Your task to perform on an android device: toggle notifications settings in the gmail app Image 0: 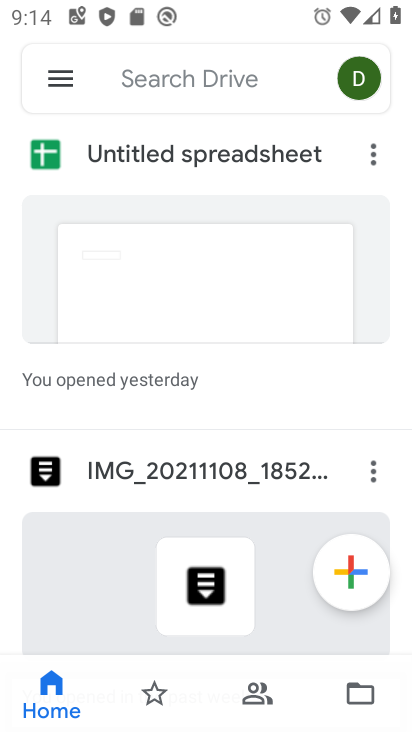
Step 0: press home button
Your task to perform on an android device: toggle notifications settings in the gmail app Image 1: 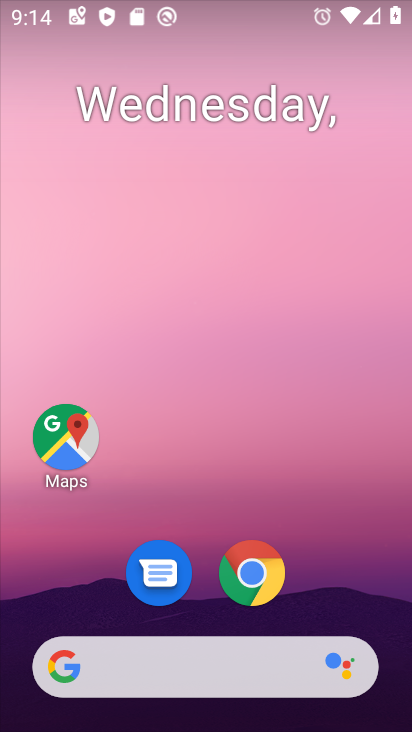
Step 1: drag from (256, 717) to (341, 2)
Your task to perform on an android device: toggle notifications settings in the gmail app Image 2: 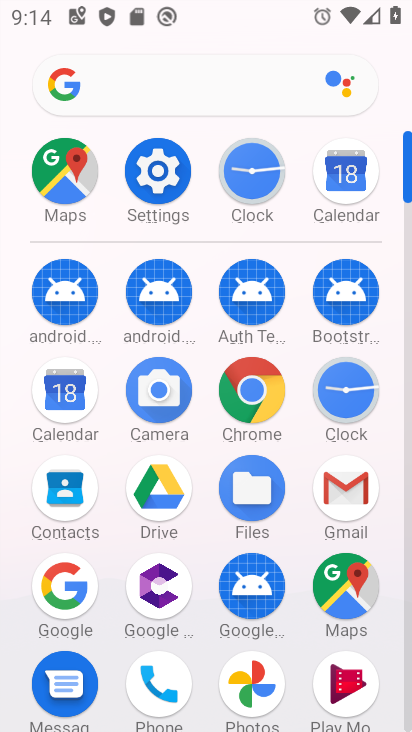
Step 2: click (373, 512)
Your task to perform on an android device: toggle notifications settings in the gmail app Image 3: 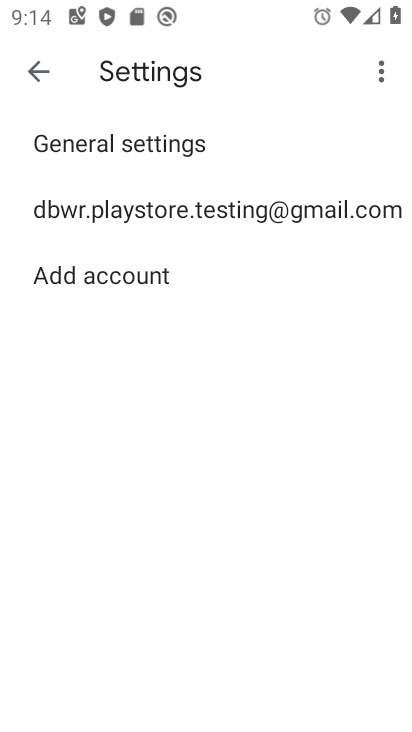
Step 3: click (175, 144)
Your task to perform on an android device: toggle notifications settings in the gmail app Image 4: 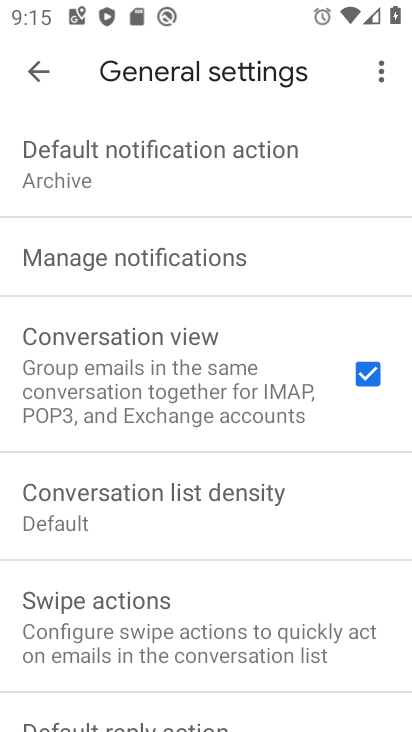
Step 4: click (202, 270)
Your task to perform on an android device: toggle notifications settings in the gmail app Image 5: 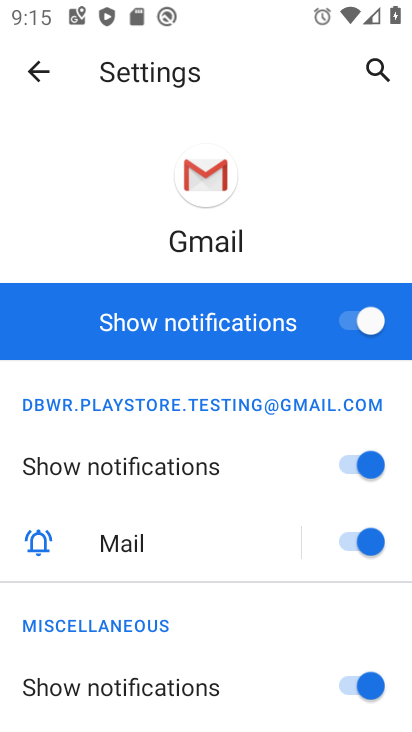
Step 5: click (352, 309)
Your task to perform on an android device: toggle notifications settings in the gmail app Image 6: 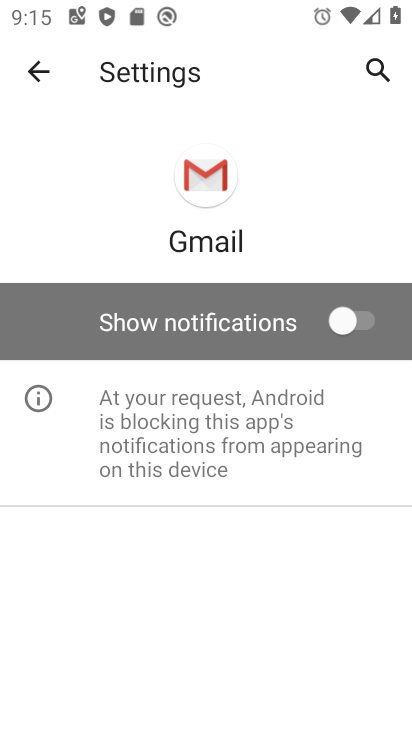
Step 6: task complete